Your task to perform on an android device: turn on data saver in the chrome app Image 0: 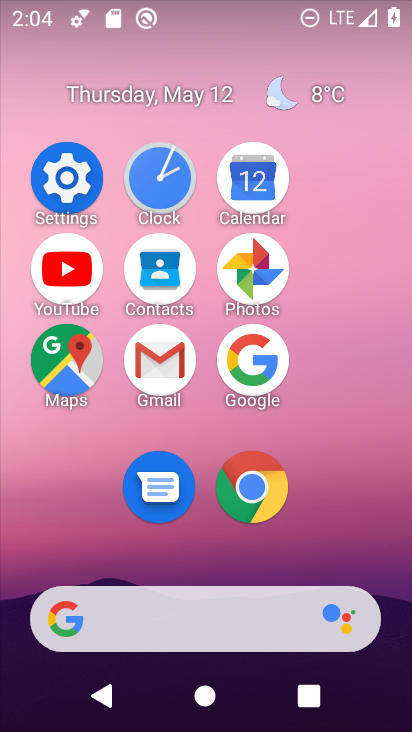
Step 0: click (253, 478)
Your task to perform on an android device: turn on data saver in the chrome app Image 1: 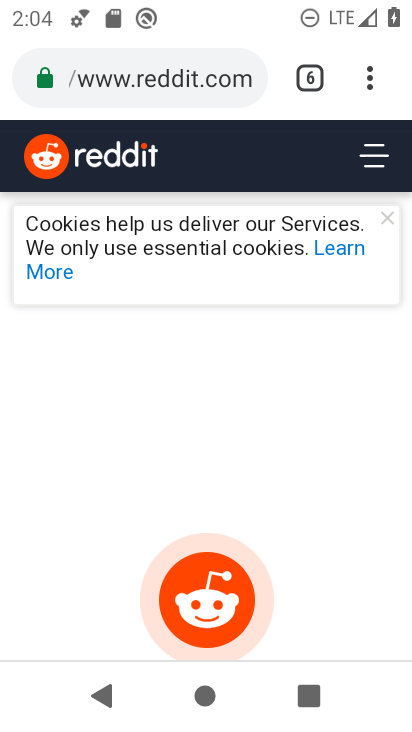
Step 1: click (378, 76)
Your task to perform on an android device: turn on data saver in the chrome app Image 2: 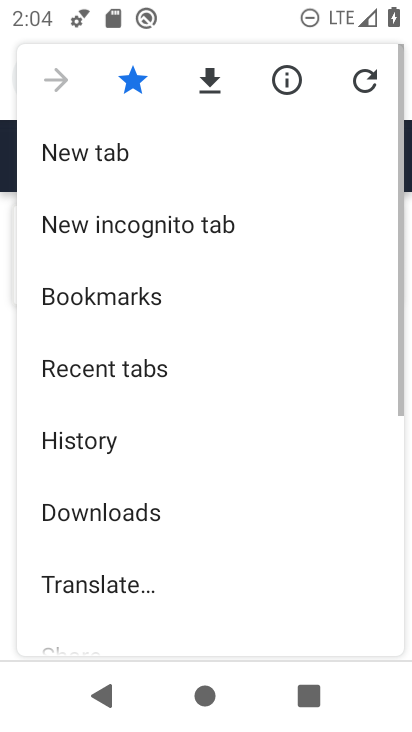
Step 2: drag from (305, 334) to (311, 134)
Your task to perform on an android device: turn on data saver in the chrome app Image 3: 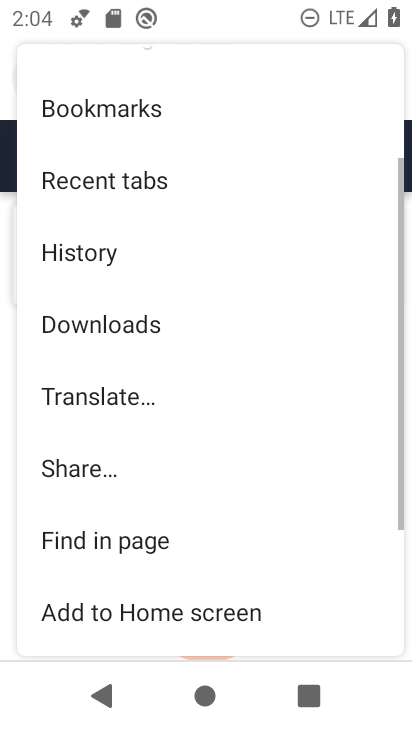
Step 3: drag from (230, 525) to (283, 166)
Your task to perform on an android device: turn on data saver in the chrome app Image 4: 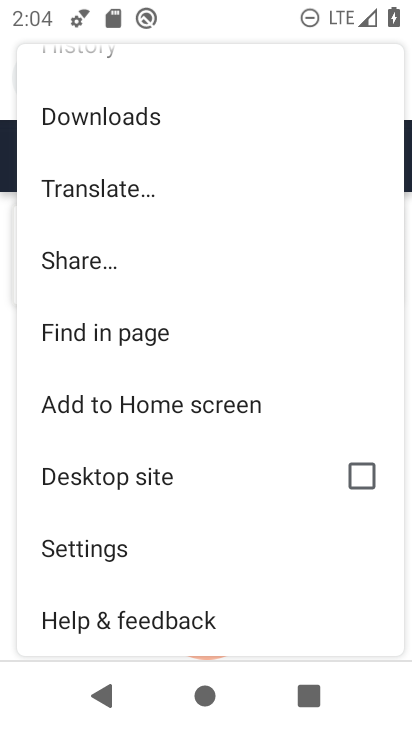
Step 4: click (79, 560)
Your task to perform on an android device: turn on data saver in the chrome app Image 5: 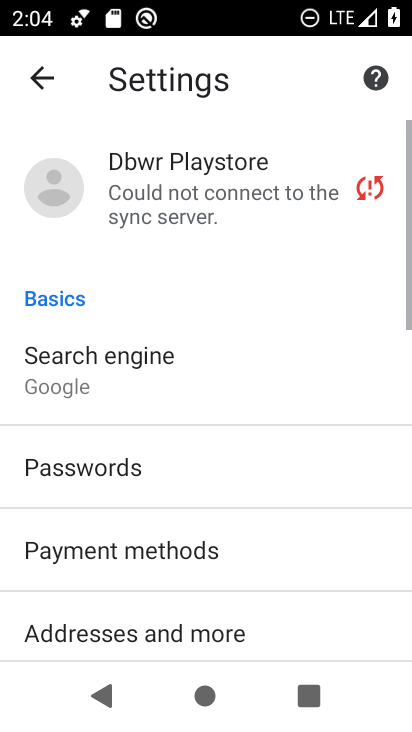
Step 5: drag from (318, 590) to (355, 167)
Your task to perform on an android device: turn on data saver in the chrome app Image 6: 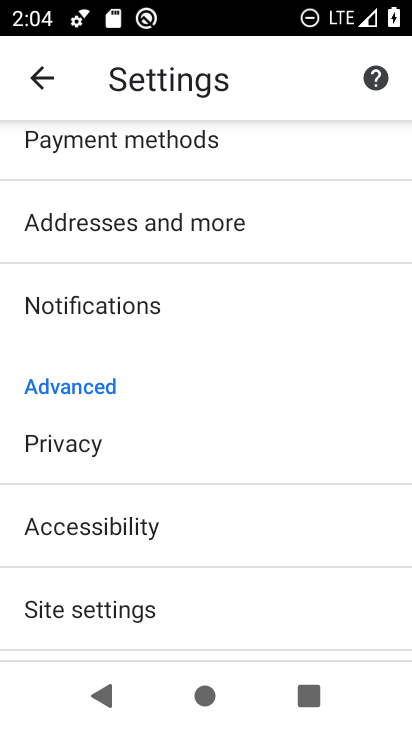
Step 6: drag from (228, 588) to (261, 186)
Your task to perform on an android device: turn on data saver in the chrome app Image 7: 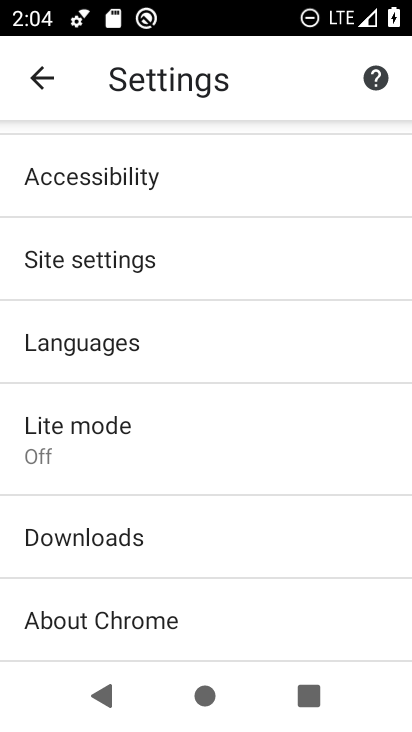
Step 7: click (234, 453)
Your task to perform on an android device: turn on data saver in the chrome app Image 8: 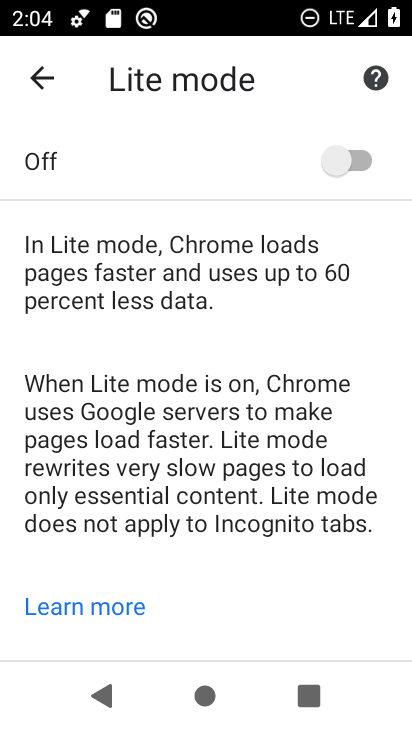
Step 8: click (357, 179)
Your task to perform on an android device: turn on data saver in the chrome app Image 9: 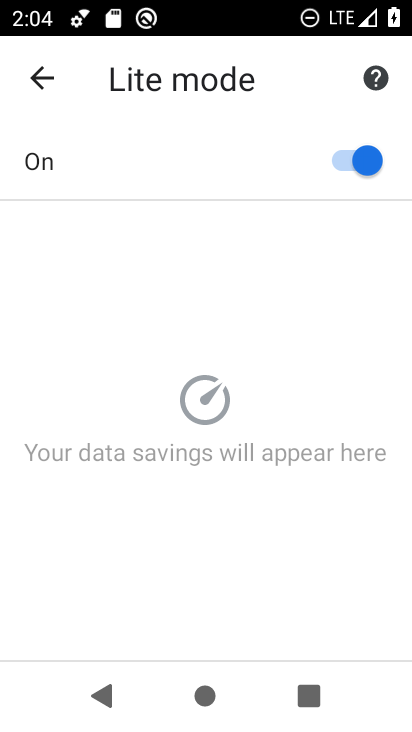
Step 9: task complete